Your task to perform on an android device: toggle airplane mode Image 0: 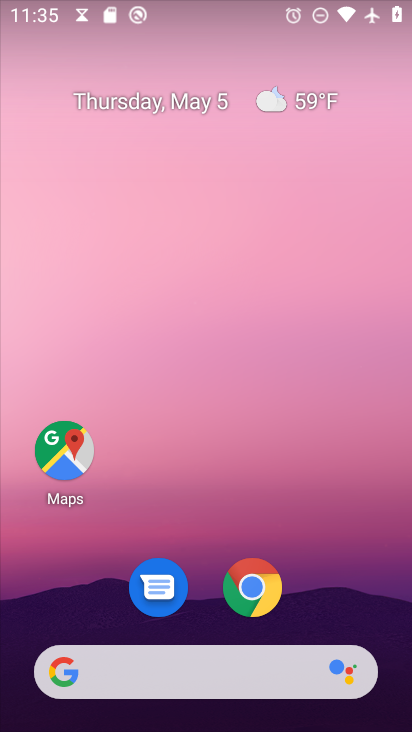
Step 0: drag from (318, 569) to (226, 3)
Your task to perform on an android device: toggle airplane mode Image 1: 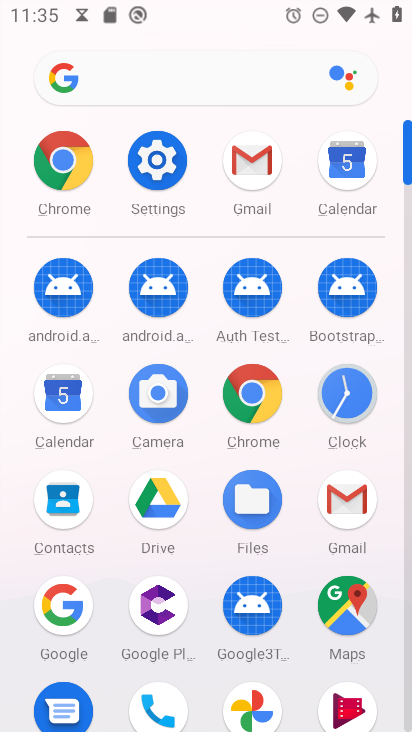
Step 1: drag from (12, 608) to (11, 322)
Your task to perform on an android device: toggle airplane mode Image 2: 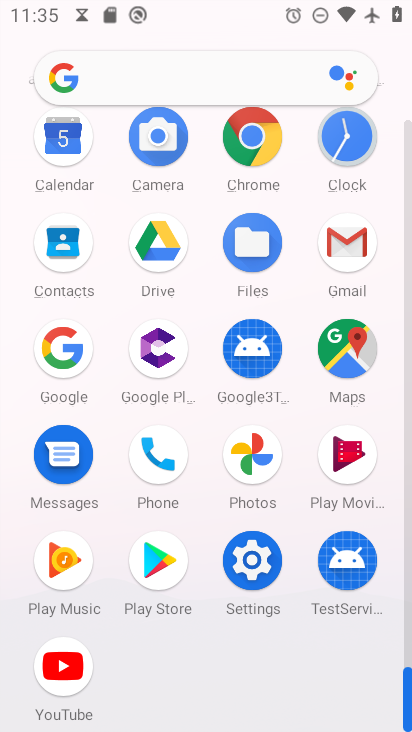
Step 2: click (248, 561)
Your task to perform on an android device: toggle airplane mode Image 3: 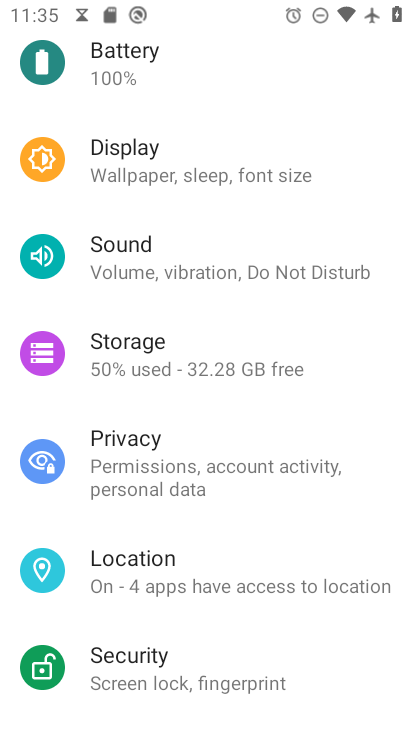
Step 3: drag from (209, 192) to (228, 644)
Your task to perform on an android device: toggle airplane mode Image 4: 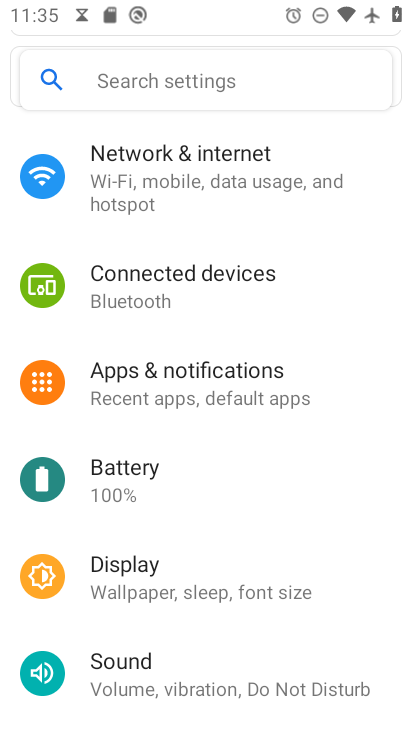
Step 4: drag from (192, 155) to (214, 576)
Your task to perform on an android device: toggle airplane mode Image 5: 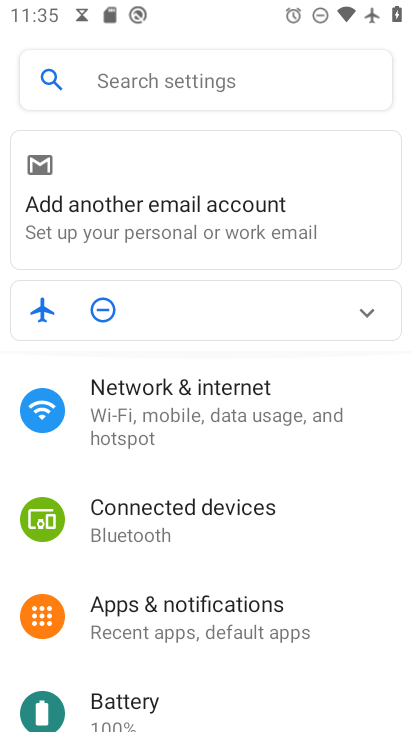
Step 5: click (185, 415)
Your task to perform on an android device: toggle airplane mode Image 6: 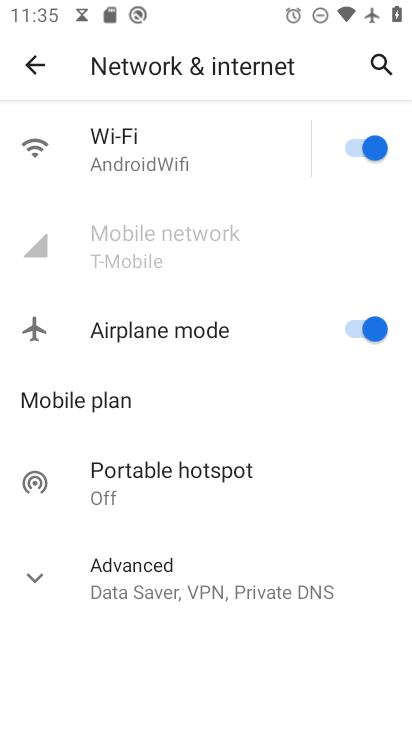
Step 6: click (356, 330)
Your task to perform on an android device: toggle airplane mode Image 7: 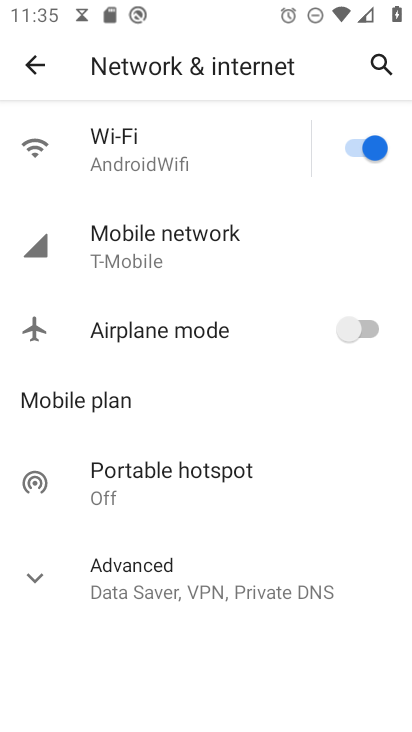
Step 7: task complete